Your task to perform on an android device: turn on priority inbox in the gmail app Image 0: 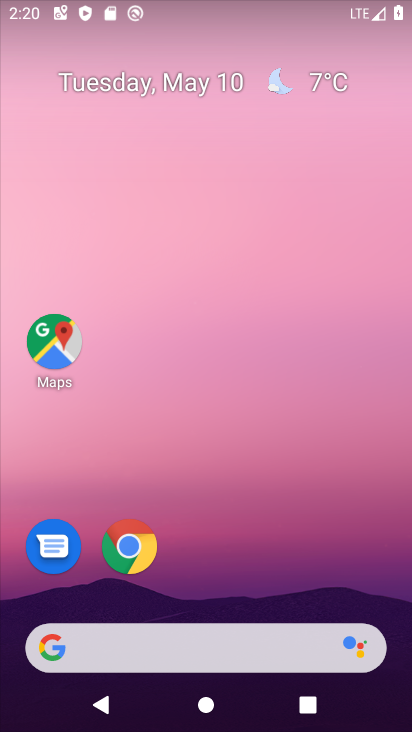
Step 0: drag from (330, 557) to (271, 46)
Your task to perform on an android device: turn on priority inbox in the gmail app Image 1: 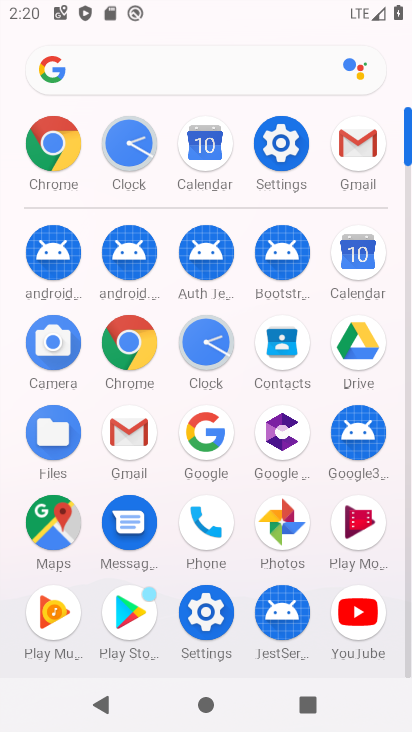
Step 1: click (351, 146)
Your task to perform on an android device: turn on priority inbox in the gmail app Image 2: 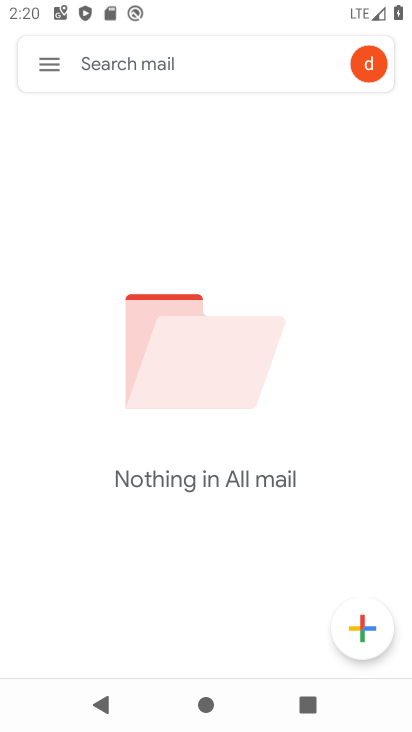
Step 2: click (32, 69)
Your task to perform on an android device: turn on priority inbox in the gmail app Image 3: 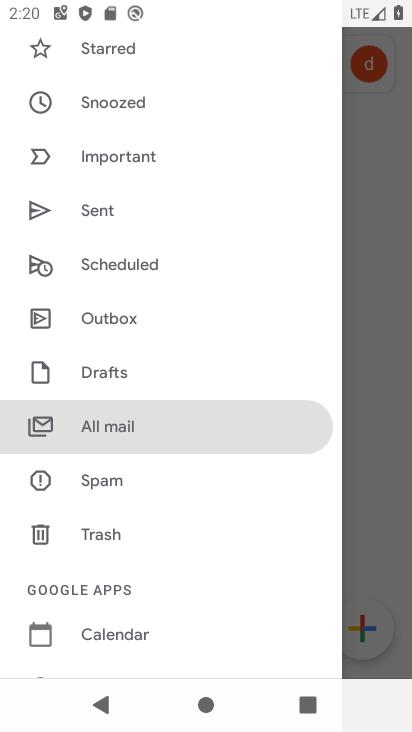
Step 3: drag from (133, 574) to (212, 179)
Your task to perform on an android device: turn on priority inbox in the gmail app Image 4: 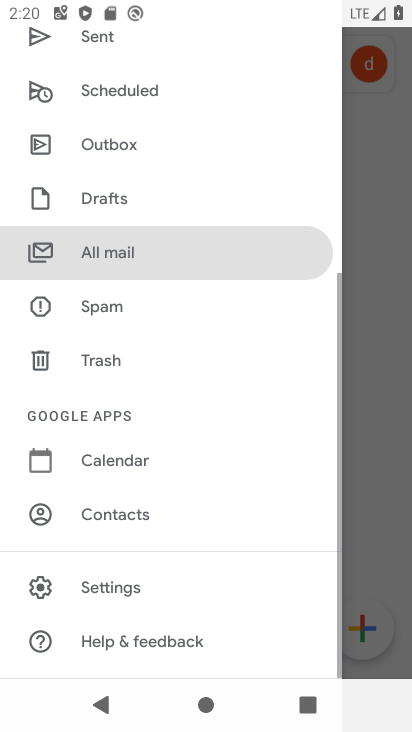
Step 4: click (121, 594)
Your task to perform on an android device: turn on priority inbox in the gmail app Image 5: 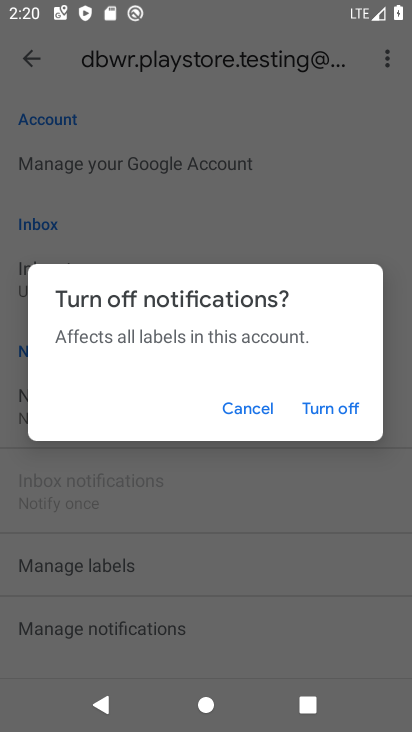
Step 5: click (257, 417)
Your task to perform on an android device: turn on priority inbox in the gmail app Image 6: 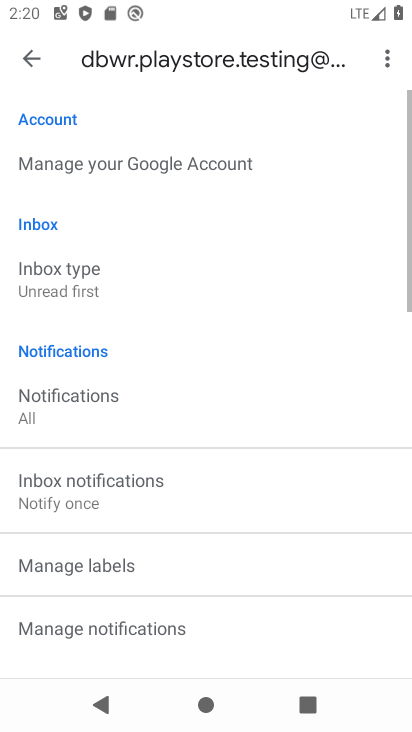
Step 6: drag from (138, 250) to (206, 523)
Your task to perform on an android device: turn on priority inbox in the gmail app Image 7: 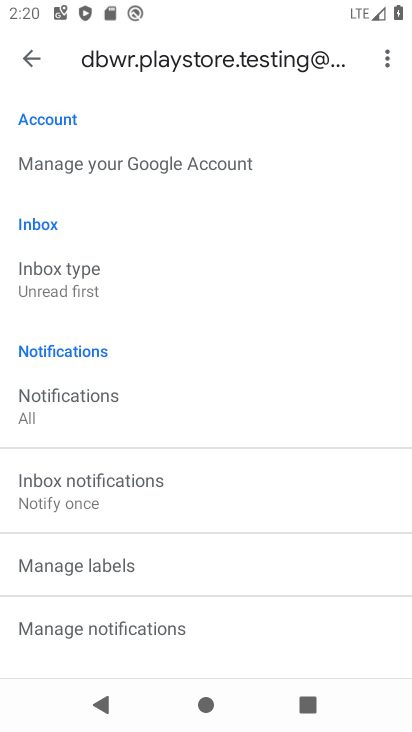
Step 7: click (89, 283)
Your task to perform on an android device: turn on priority inbox in the gmail app Image 8: 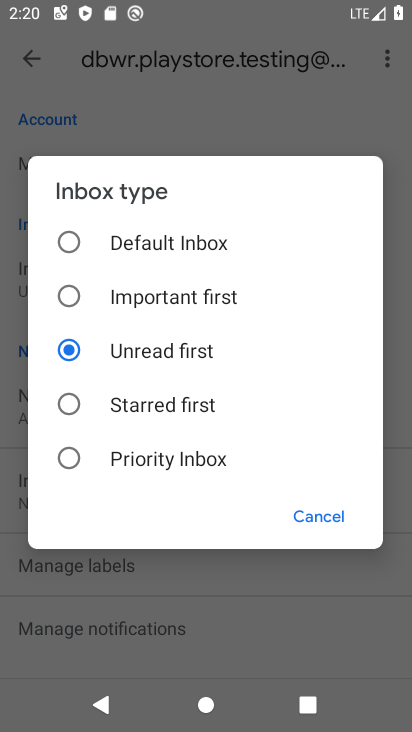
Step 8: click (89, 455)
Your task to perform on an android device: turn on priority inbox in the gmail app Image 9: 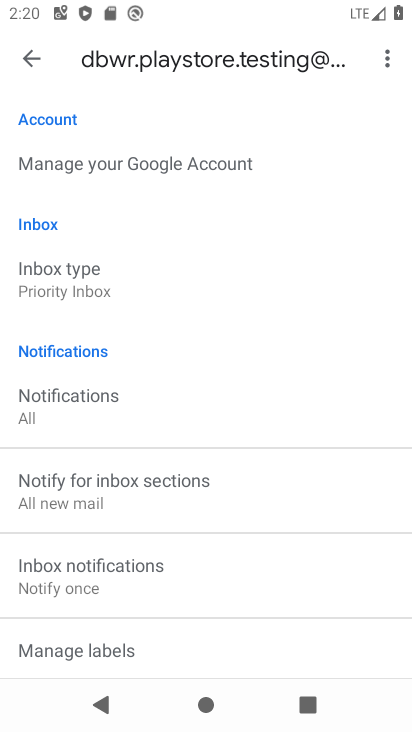
Step 9: task complete